Your task to perform on an android device: Open Yahoo.com Image 0: 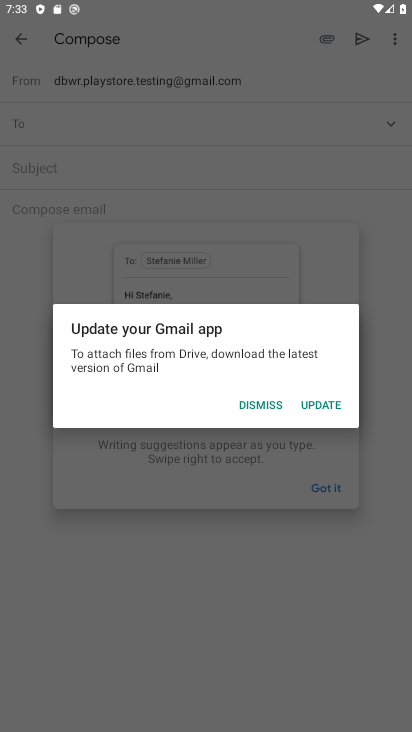
Step 0: press home button
Your task to perform on an android device: Open Yahoo.com Image 1: 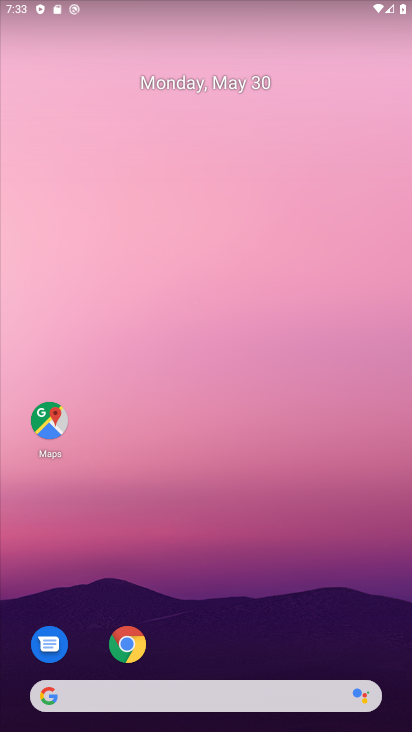
Step 1: click (127, 644)
Your task to perform on an android device: Open Yahoo.com Image 2: 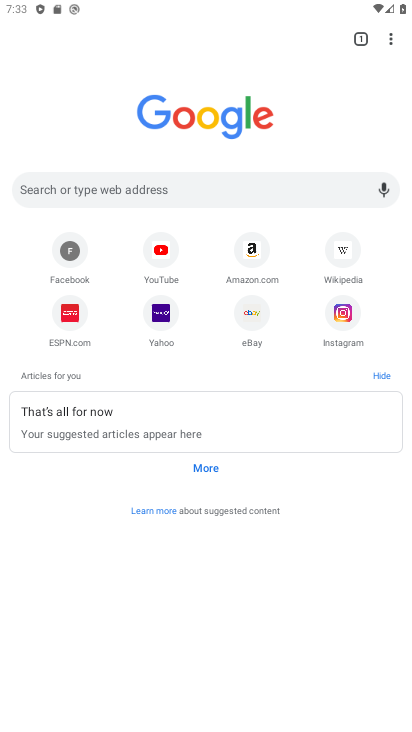
Step 2: click (213, 189)
Your task to perform on an android device: Open Yahoo.com Image 3: 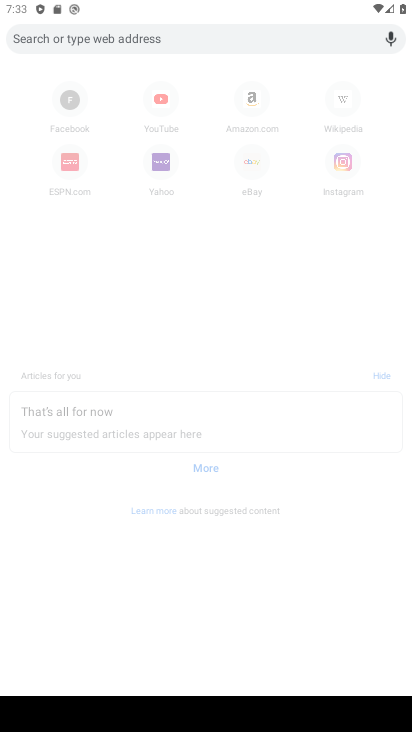
Step 3: type "Yahoo.com"
Your task to perform on an android device: Open Yahoo.com Image 4: 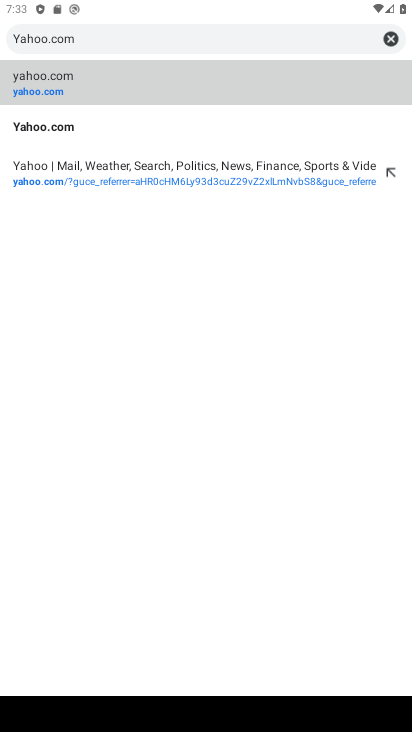
Step 4: click (63, 127)
Your task to perform on an android device: Open Yahoo.com Image 5: 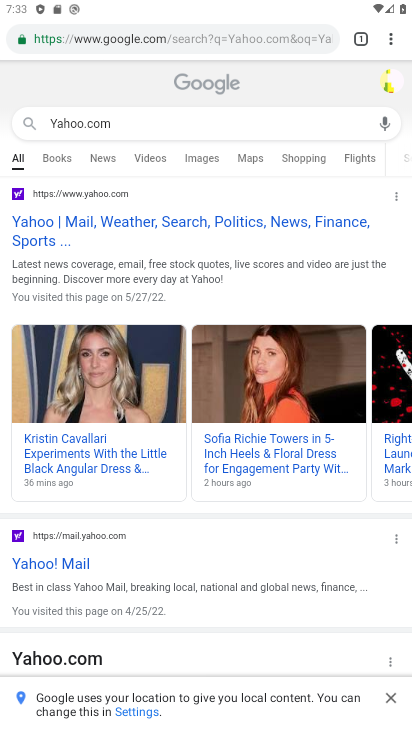
Step 5: click (104, 223)
Your task to perform on an android device: Open Yahoo.com Image 6: 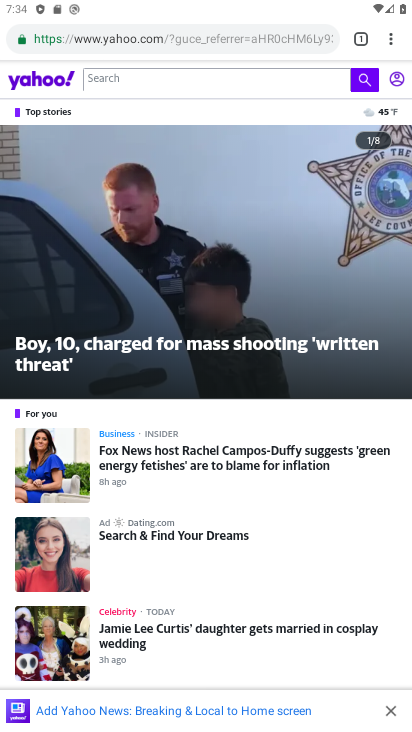
Step 6: task complete